Your task to perform on an android device: Open Google Image 0: 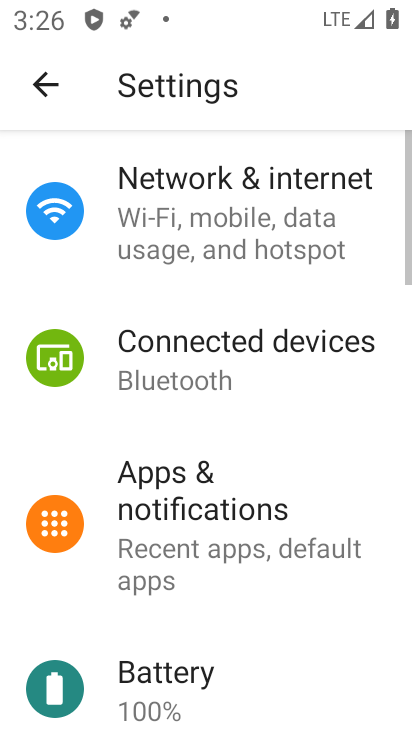
Step 0: press home button
Your task to perform on an android device: Open Google Image 1: 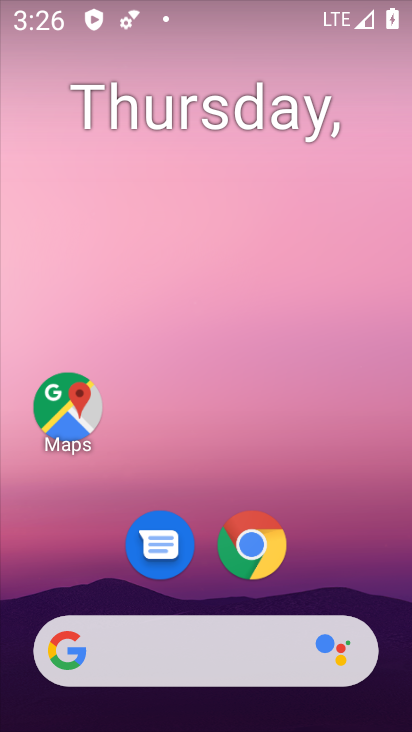
Step 1: drag from (376, 349) to (386, 7)
Your task to perform on an android device: Open Google Image 2: 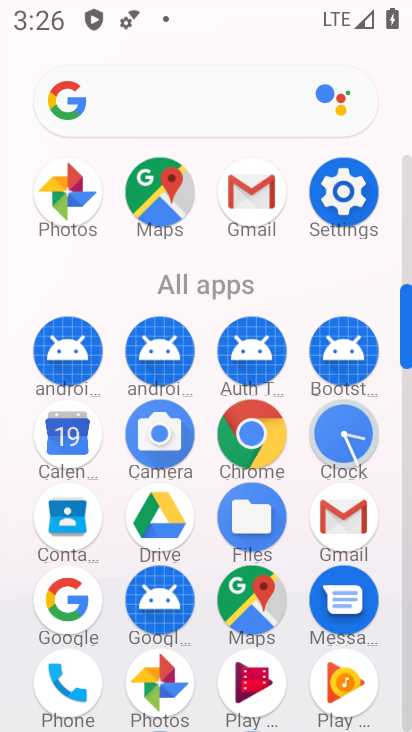
Step 2: click (89, 576)
Your task to perform on an android device: Open Google Image 3: 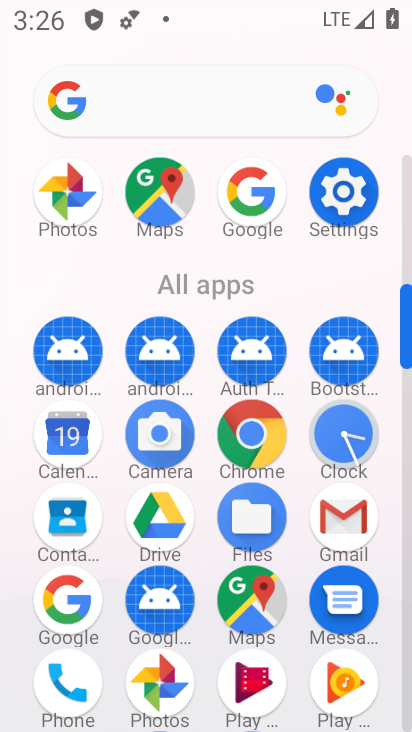
Step 3: task complete